Your task to perform on an android device: stop showing notifications on the lock screen Image 0: 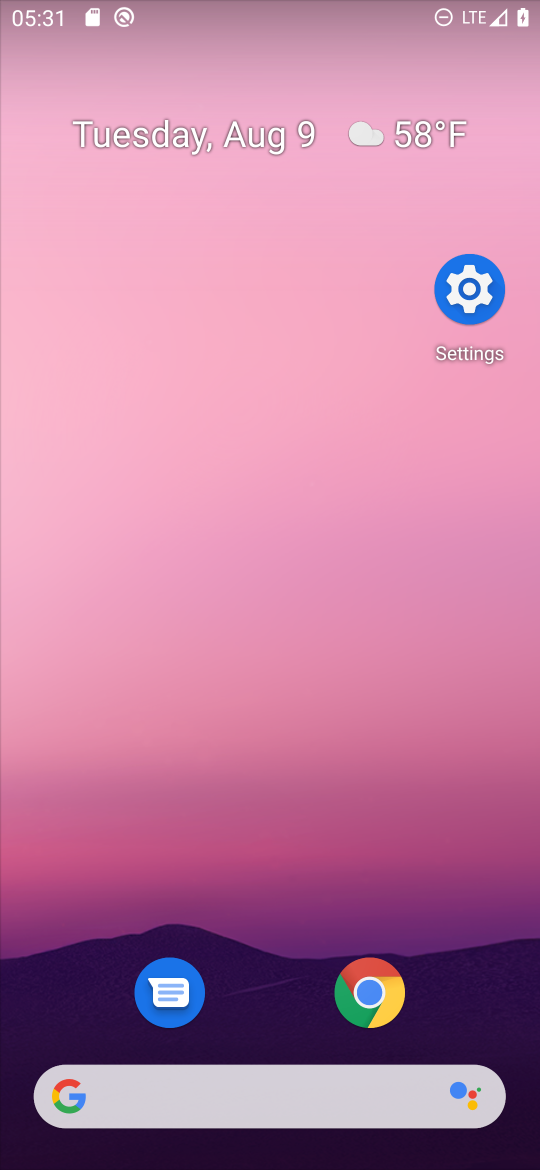
Step 0: drag from (303, 1085) to (203, 251)
Your task to perform on an android device: stop showing notifications on the lock screen Image 1: 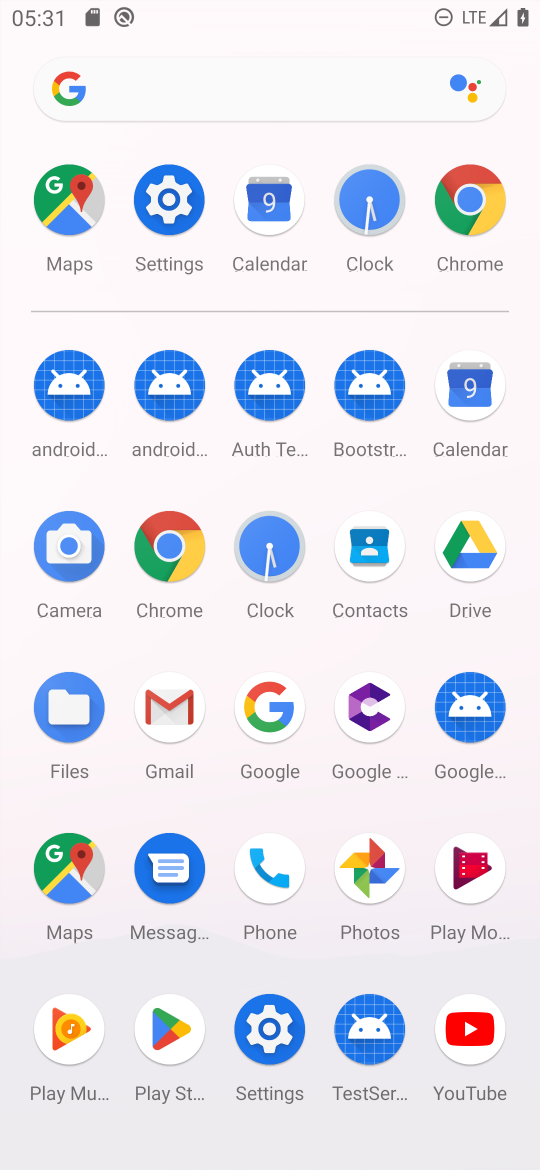
Step 1: click (180, 220)
Your task to perform on an android device: stop showing notifications on the lock screen Image 2: 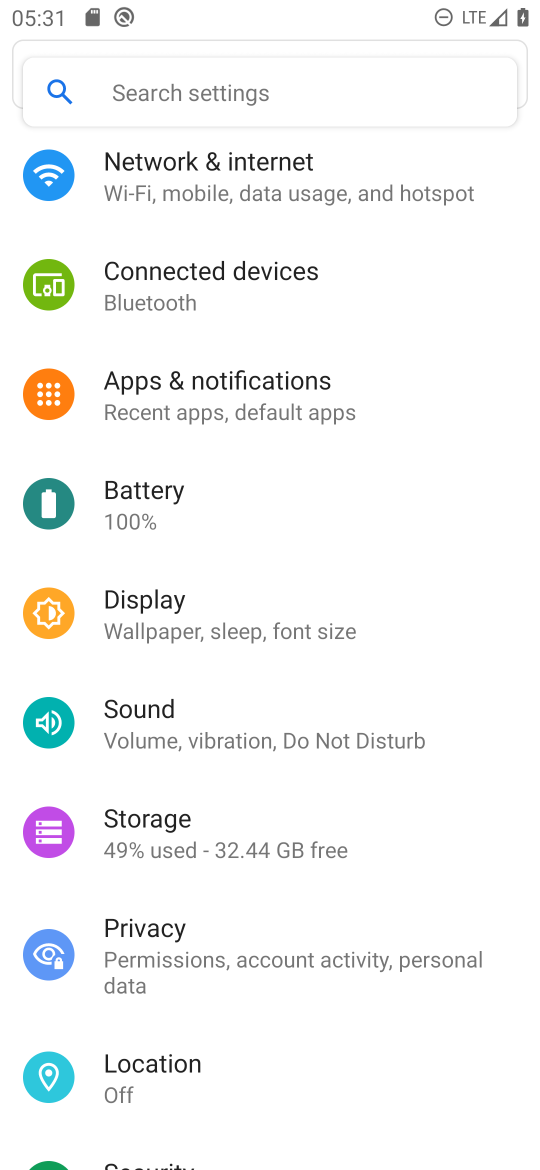
Step 2: click (228, 395)
Your task to perform on an android device: stop showing notifications on the lock screen Image 3: 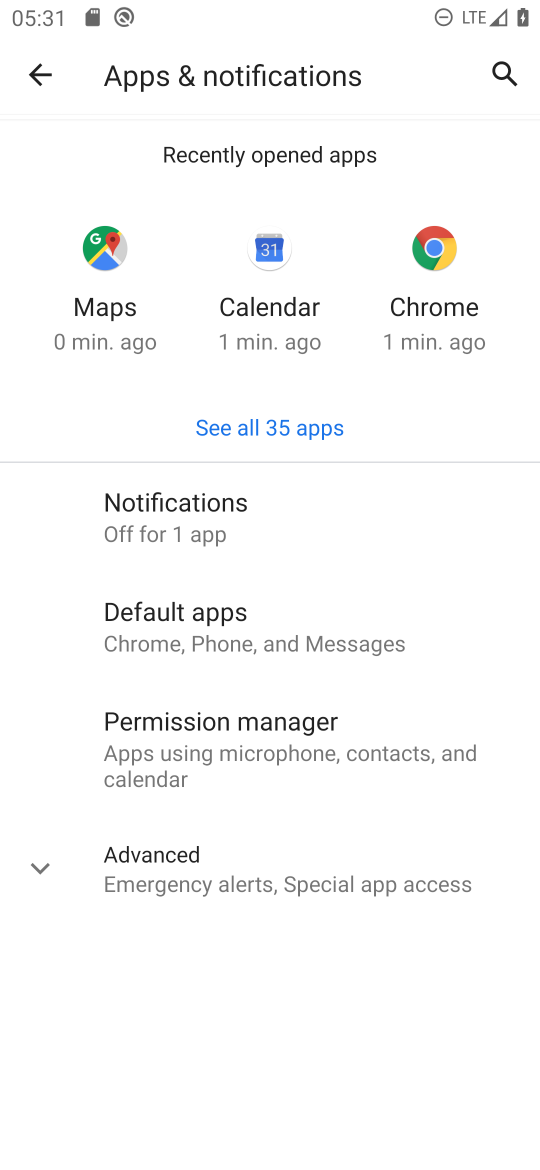
Step 3: click (204, 500)
Your task to perform on an android device: stop showing notifications on the lock screen Image 4: 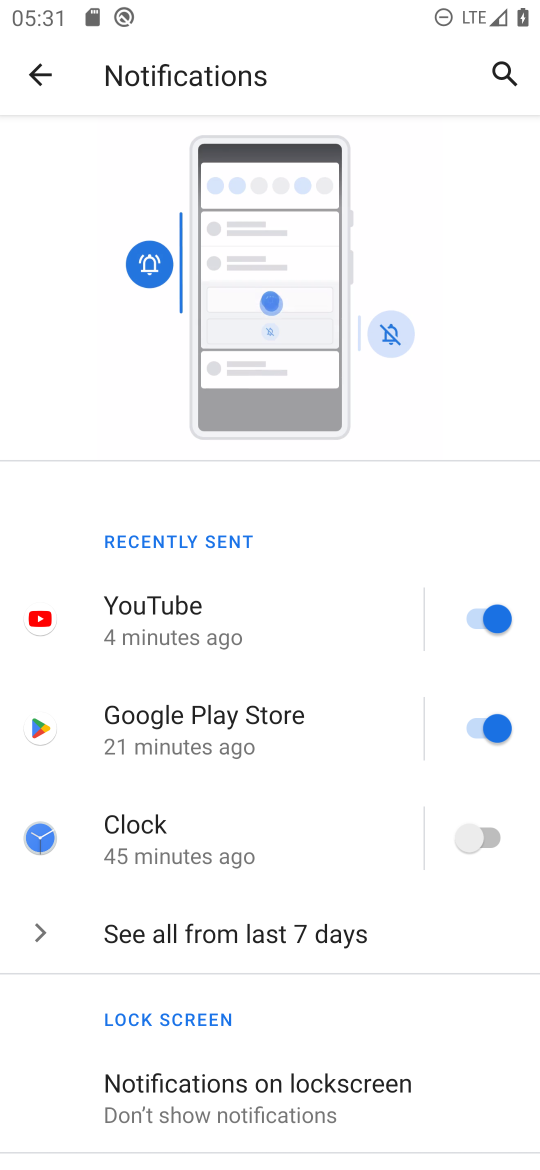
Step 4: click (361, 1076)
Your task to perform on an android device: stop showing notifications on the lock screen Image 5: 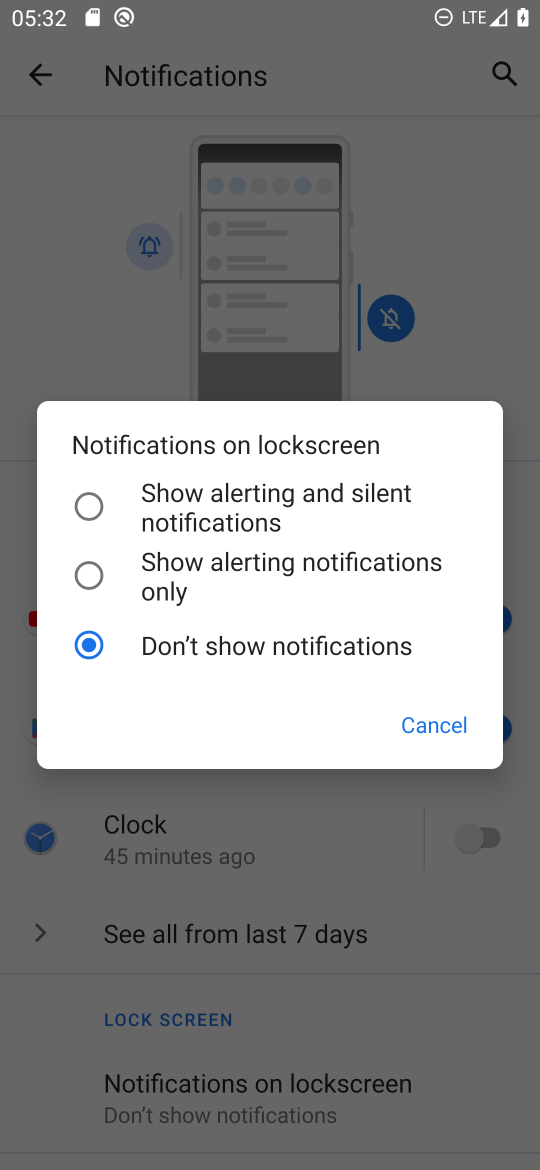
Step 5: task complete